Your task to perform on an android device: open app "DuckDuckGo Privacy Browser" (install if not already installed) and enter user name: "cleaving@outlook.com" and password: "freighters" Image 0: 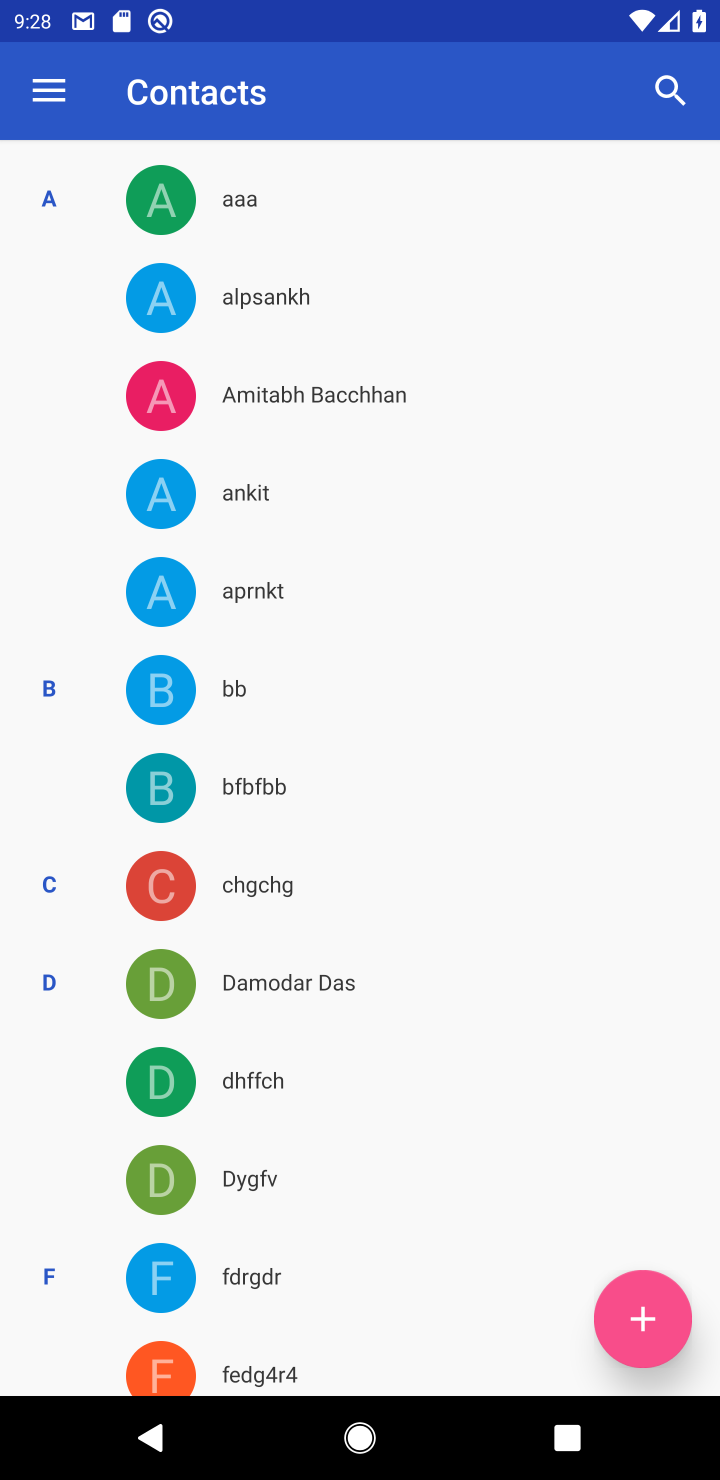
Step 0: press home button
Your task to perform on an android device: open app "DuckDuckGo Privacy Browser" (install if not already installed) and enter user name: "cleaving@outlook.com" and password: "freighters" Image 1: 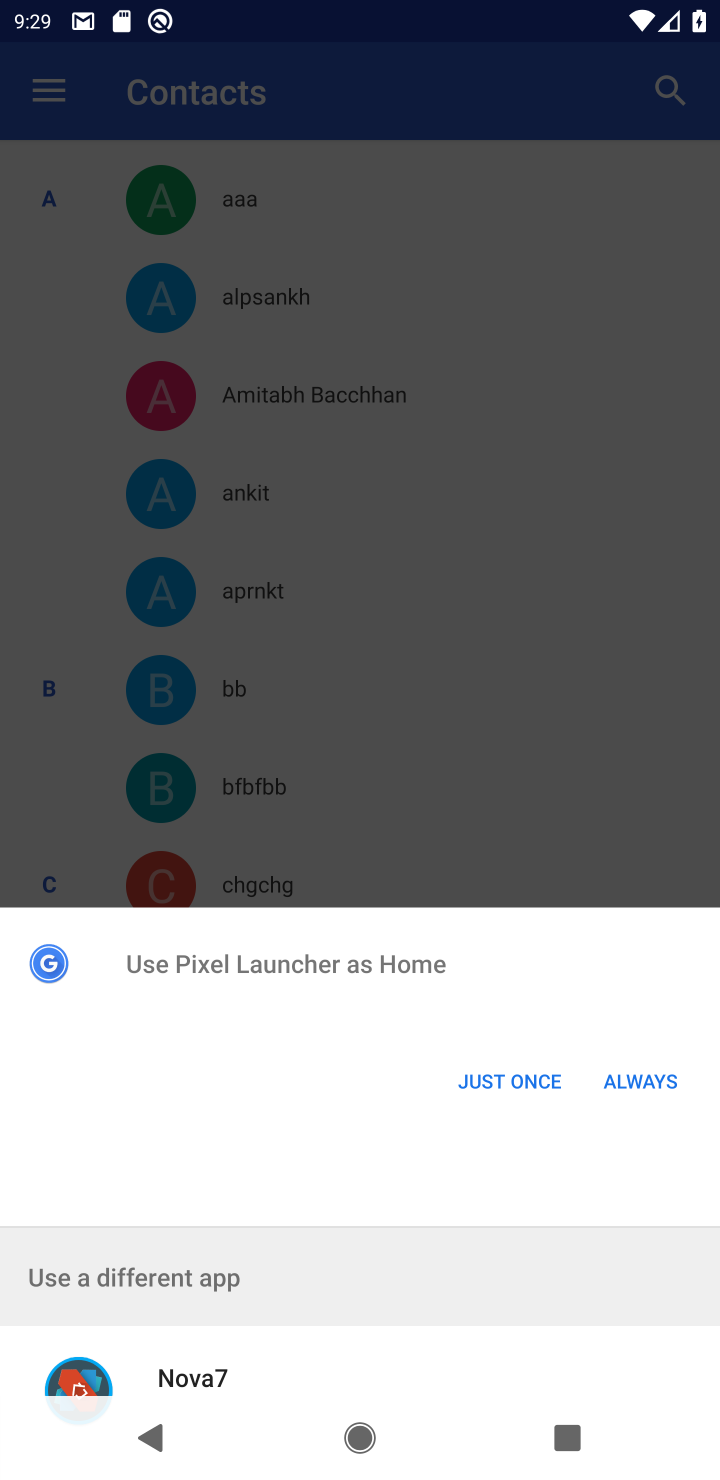
Step 1: press back button
Your task to perform on an android device: open app "DuckDuckGo Privacy Browser" (install if not already installed) and enter user name: "cleaving@outlook.com" and password: "freighters" Image 2: 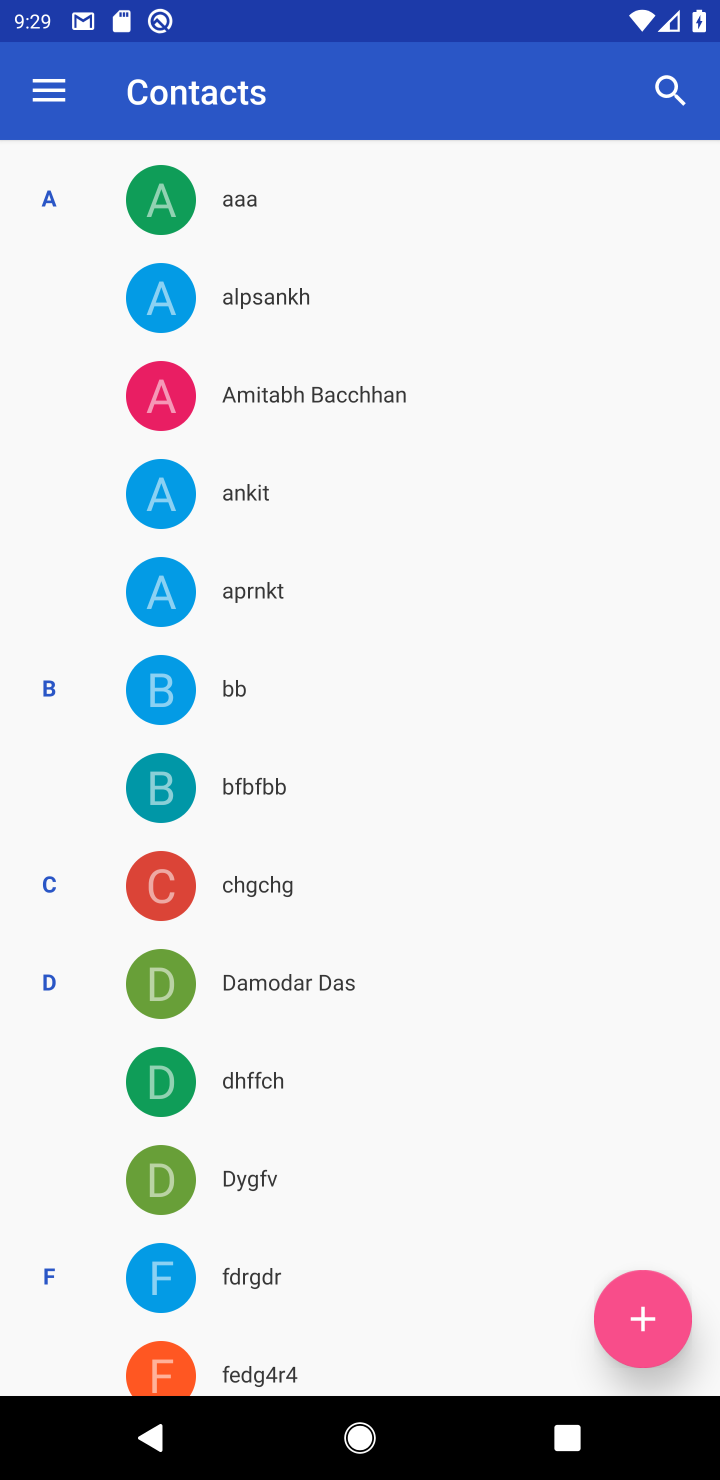
Step 2: press back button
Your task to perform on an android device: open app "DuckDuckGo Privacy Browser" (install if not already installed) and enter user name: "cleaving@outlook.com" and password: "freighters" Image 3: 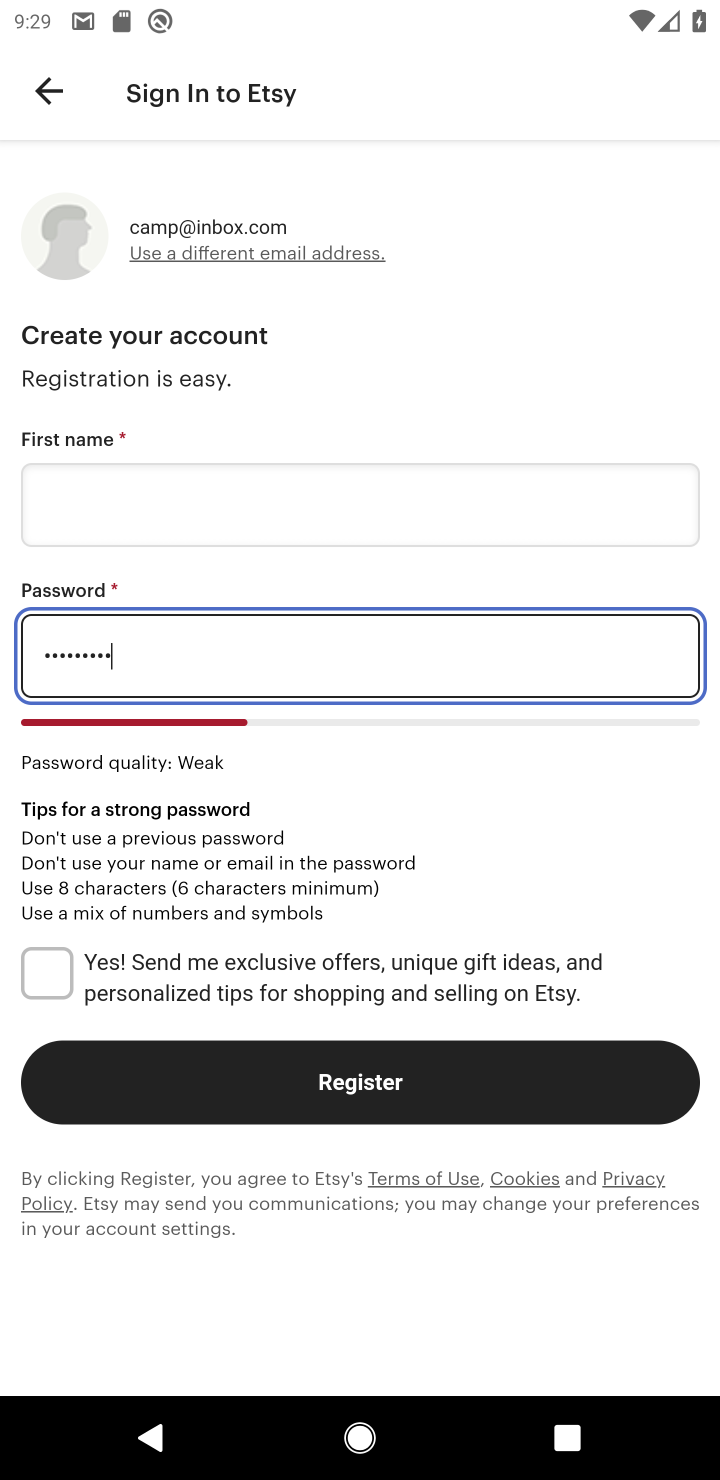
Step 3: press back button
Your task to perform on an android device: open app "DuckDuckGo Privacy Browser" (install if not already installed) and enter user name: "cleaving@outlook.com" and password: "freighters" Image 4: 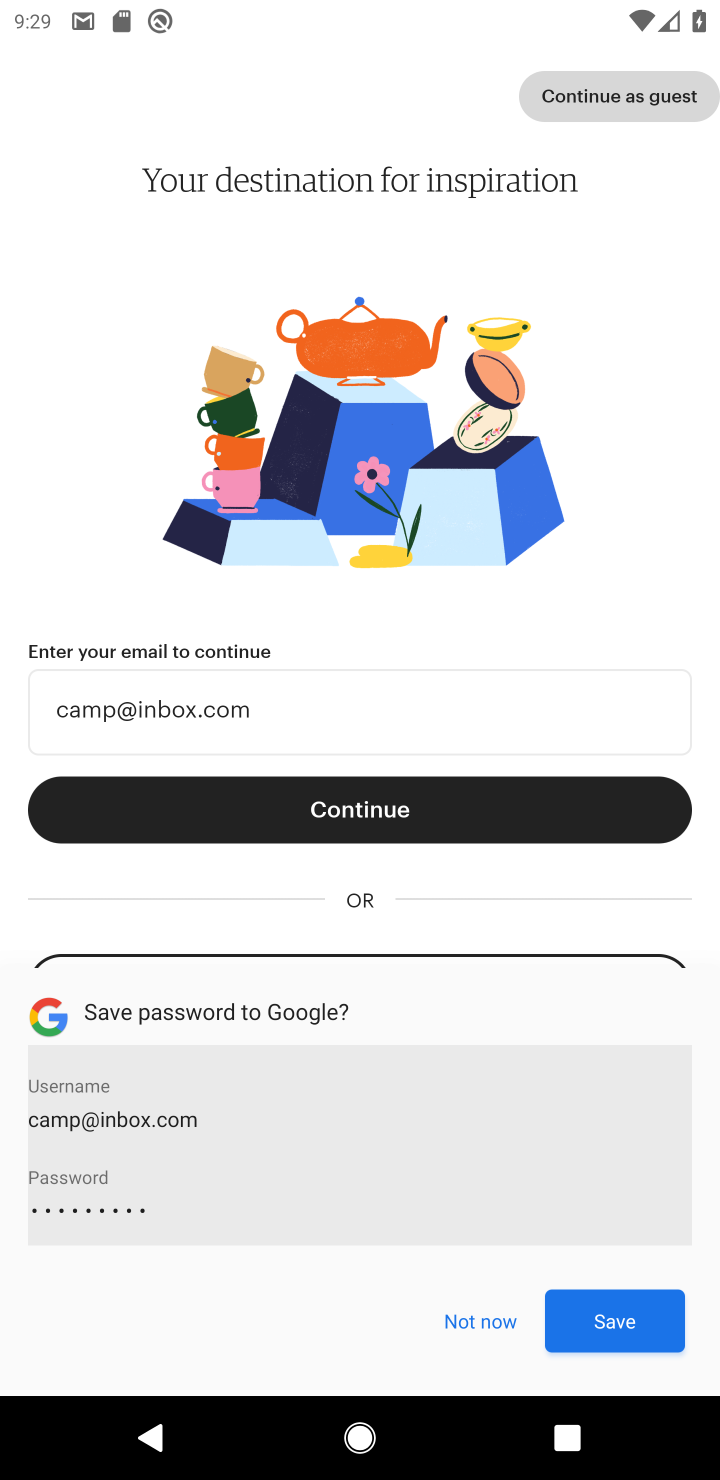
Step 4: press back button
Your task to perform on an android device: open app "DuckDuckGo Privacy Browser" (install if not already installed) and enter user name: "cleaving@outlook.com" and password: "freighters" Image 5: 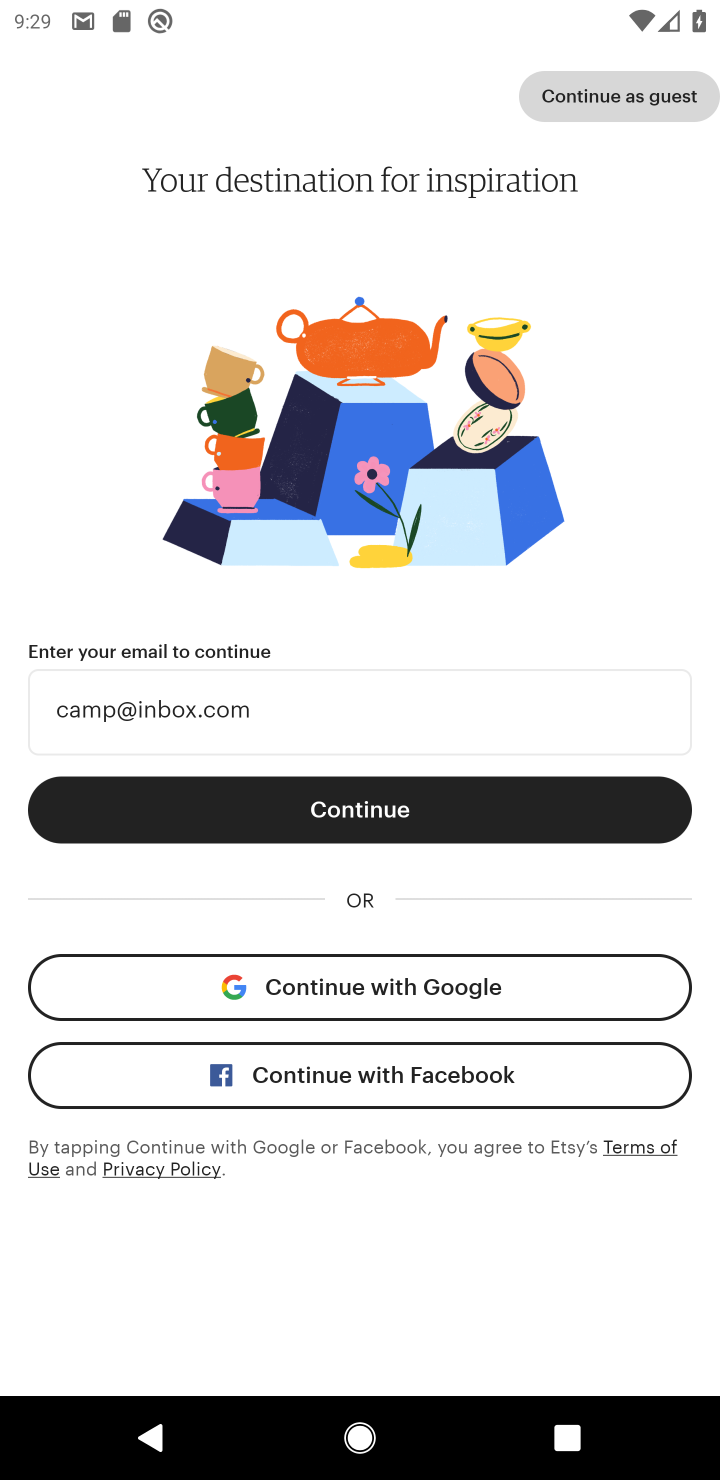
Step 5: press back button
Your task to perform on an android device: open app "DuckDuckGo Privacy Browser" (install if not already installed) and enter user name: "cleaving@outlook.com" and password: "freighters" Image 6: 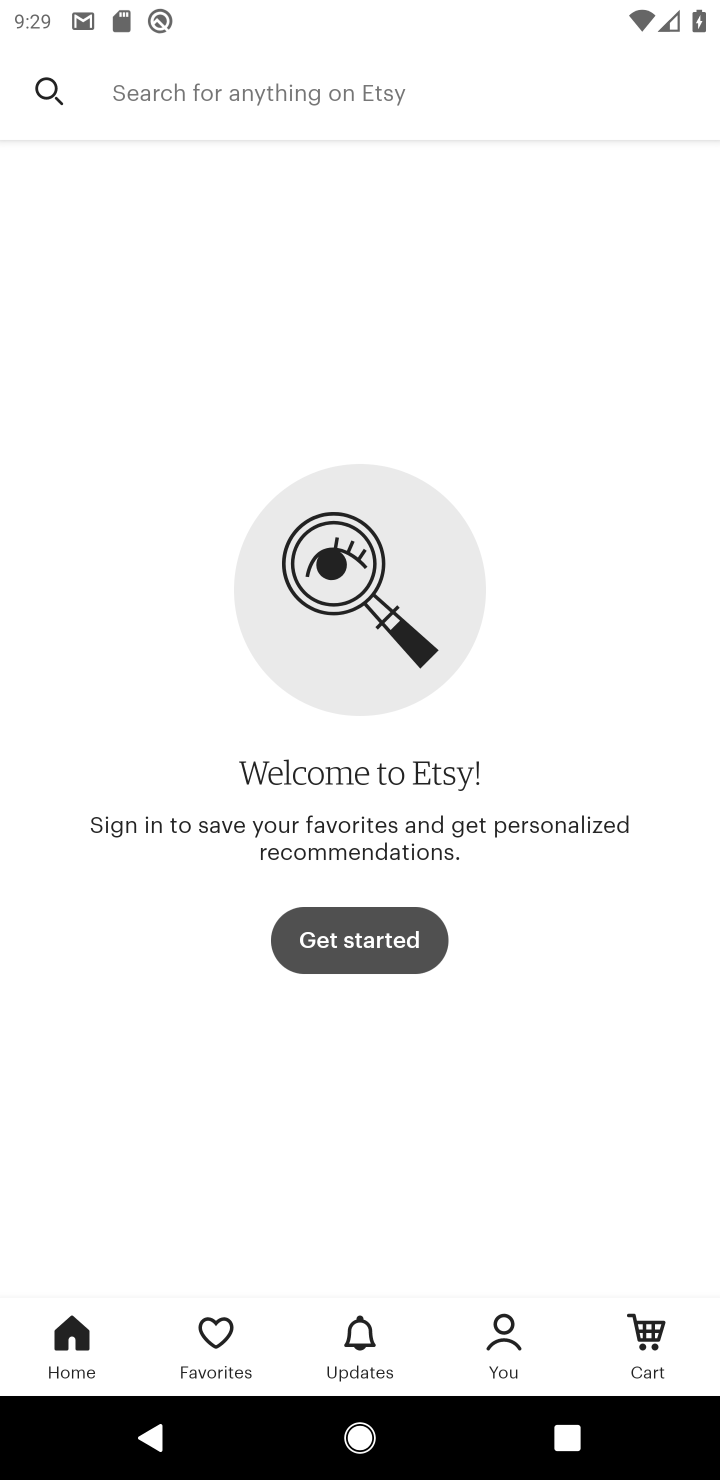
Step 6: press back button
Your task to perform on an android device: open app "DuckDuckGo Privacy Browser" (install if not already installed) and enter user name: "cleaving@outlook.com" and password: "freighters" Image 7: 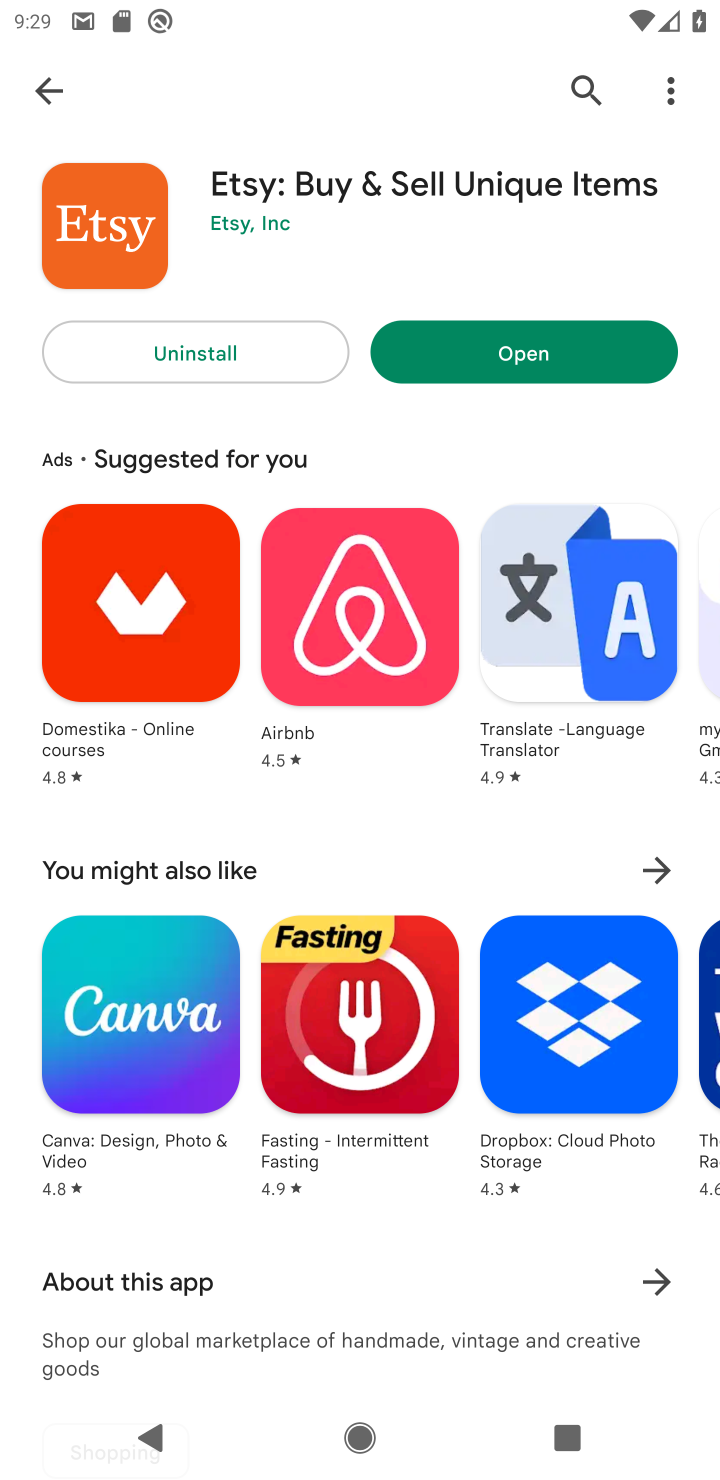
Step 7: press back button
Your task to perform on an android device: open app "DuckDuckGo Privacy Browser" (install if not already installed) and enter user name: "cleaving@outlook.com" and password: "freighters" Image 8: 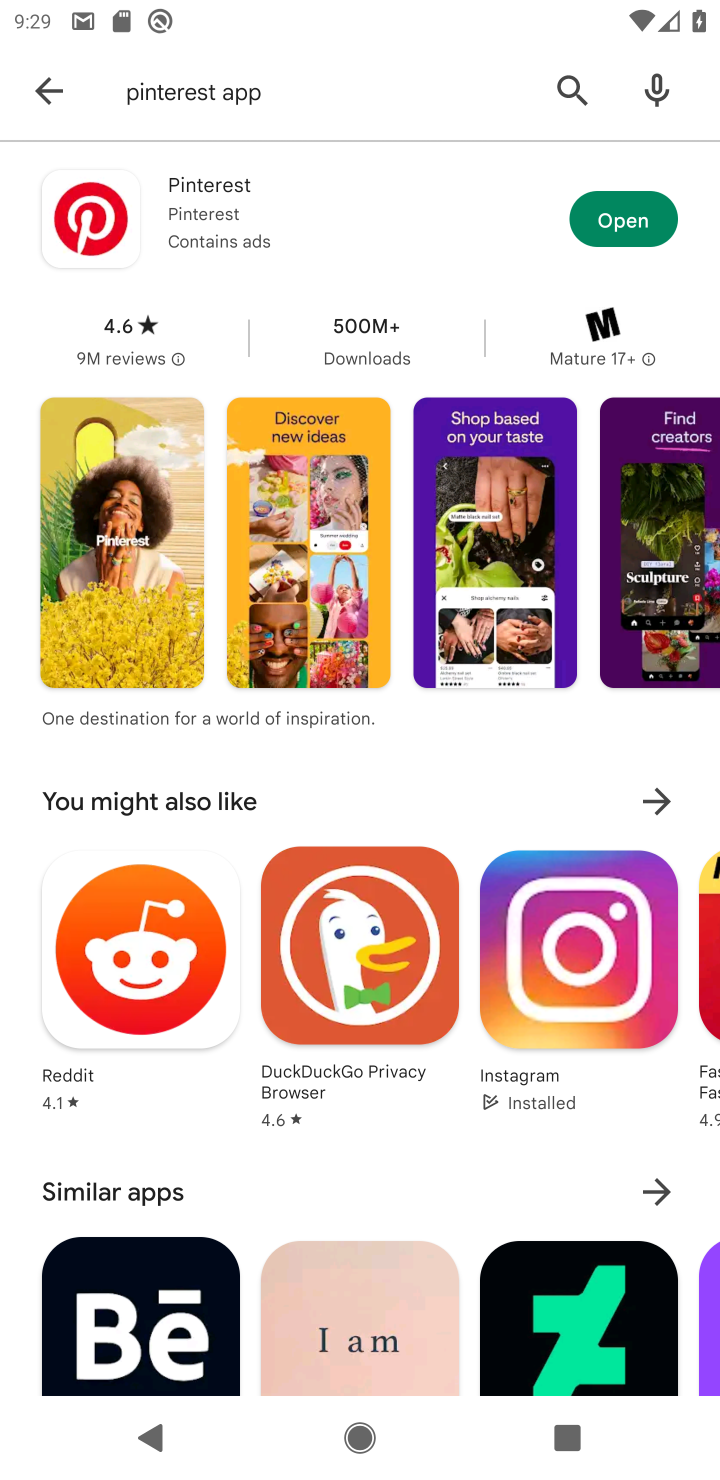
Step 8: click (566, 85)
Your task to perform on an android device: open app "DuckDuckGo Privacy Browser" (install if not already installed) and enter user name: "cleaving@outlook.com" and password: "freighters" Image 9: 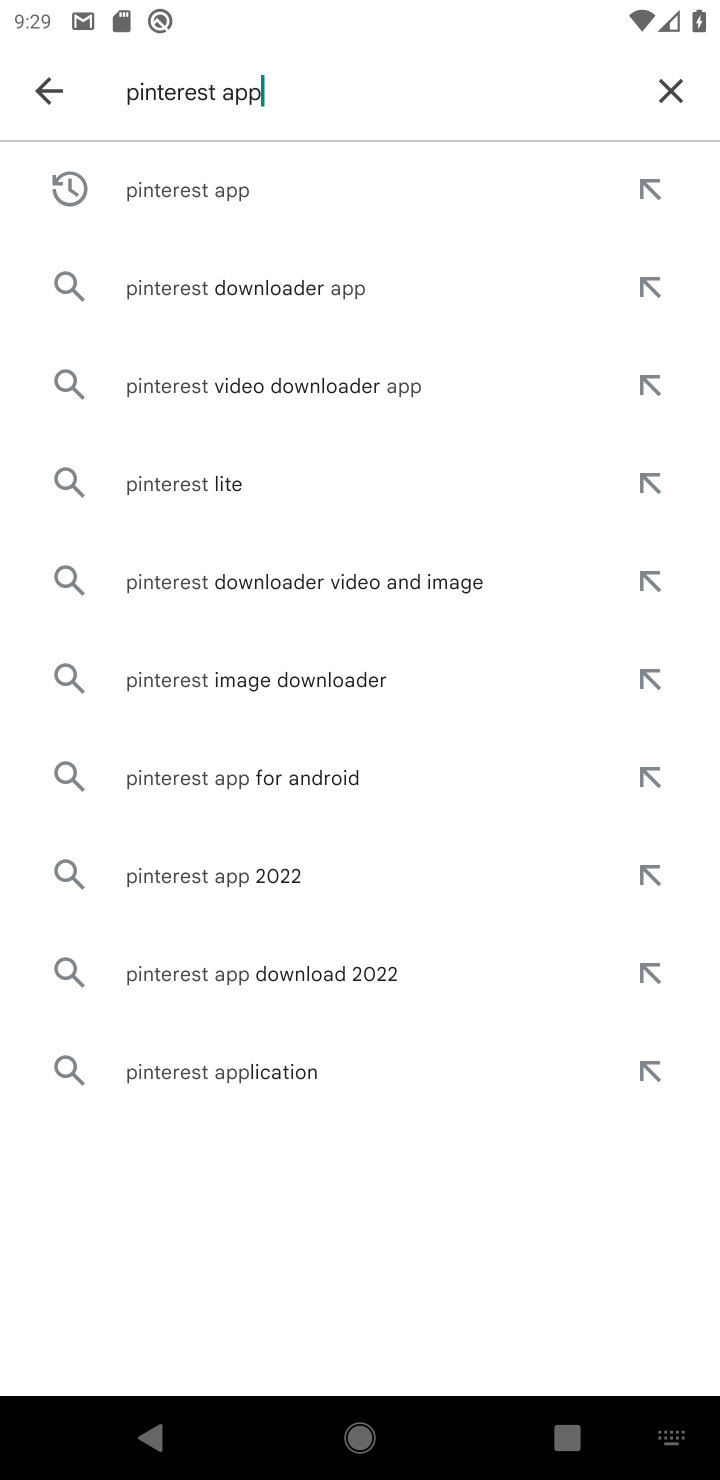
Step 9: click (665, 77)
Your task to perform on an android device: open app "DuckDuckGo Privacy Browser" (install if not already installed) and enter user name: "cleaving@outlook.com" and password: "freighters" Image 10: 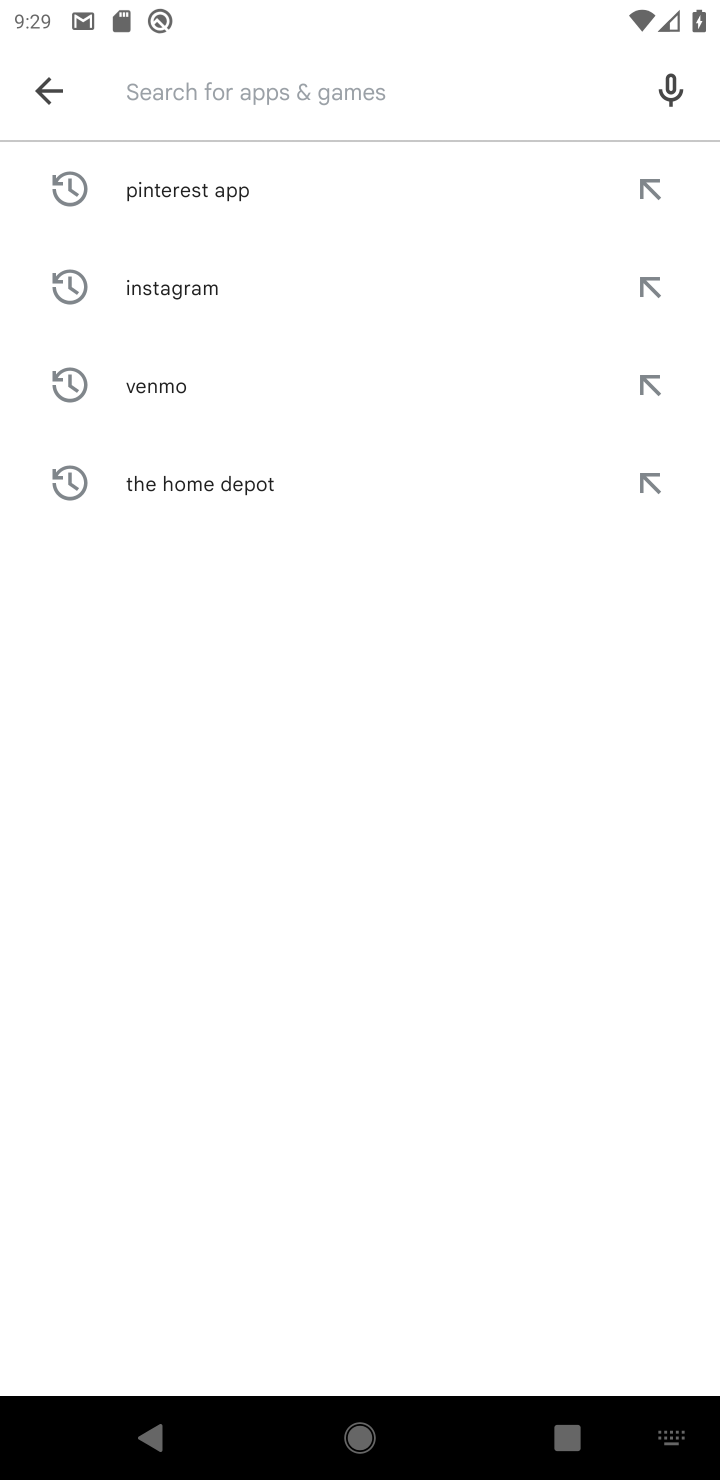
Step 10: type "DuckDuckGo Privacy Browser"
Your task to perform on an android device: open app "DuckDuckGo Privacy Browser" (install if not already installed) and enter user name: "cleaving@outlook.com" and password: "freighters" Image 11: 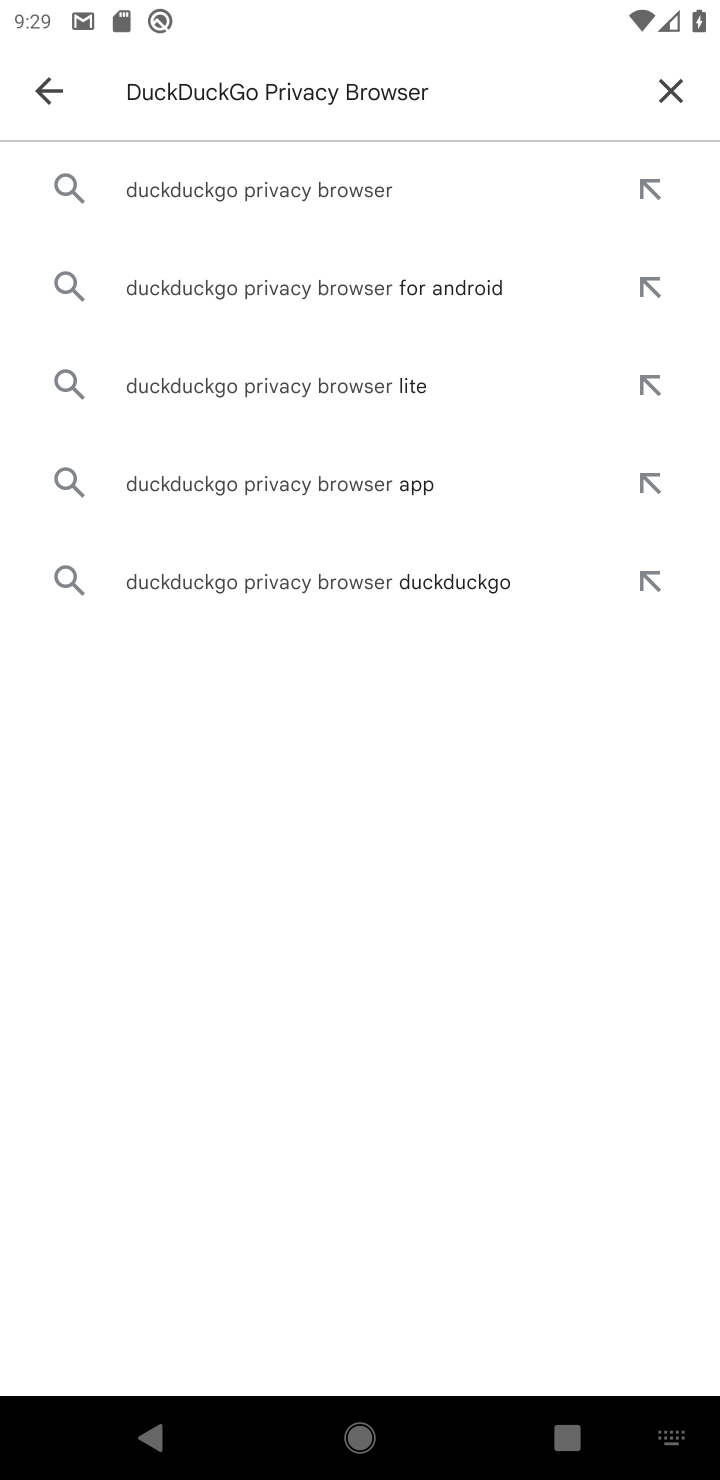
Step 11: click (279, 192)
Your task to perform on an android device: open app "DuckDuckGo Privacy Browser" (install if not already installed) and enter user name: "cleaving@outlook.com" and password: "freighters" Image 12: 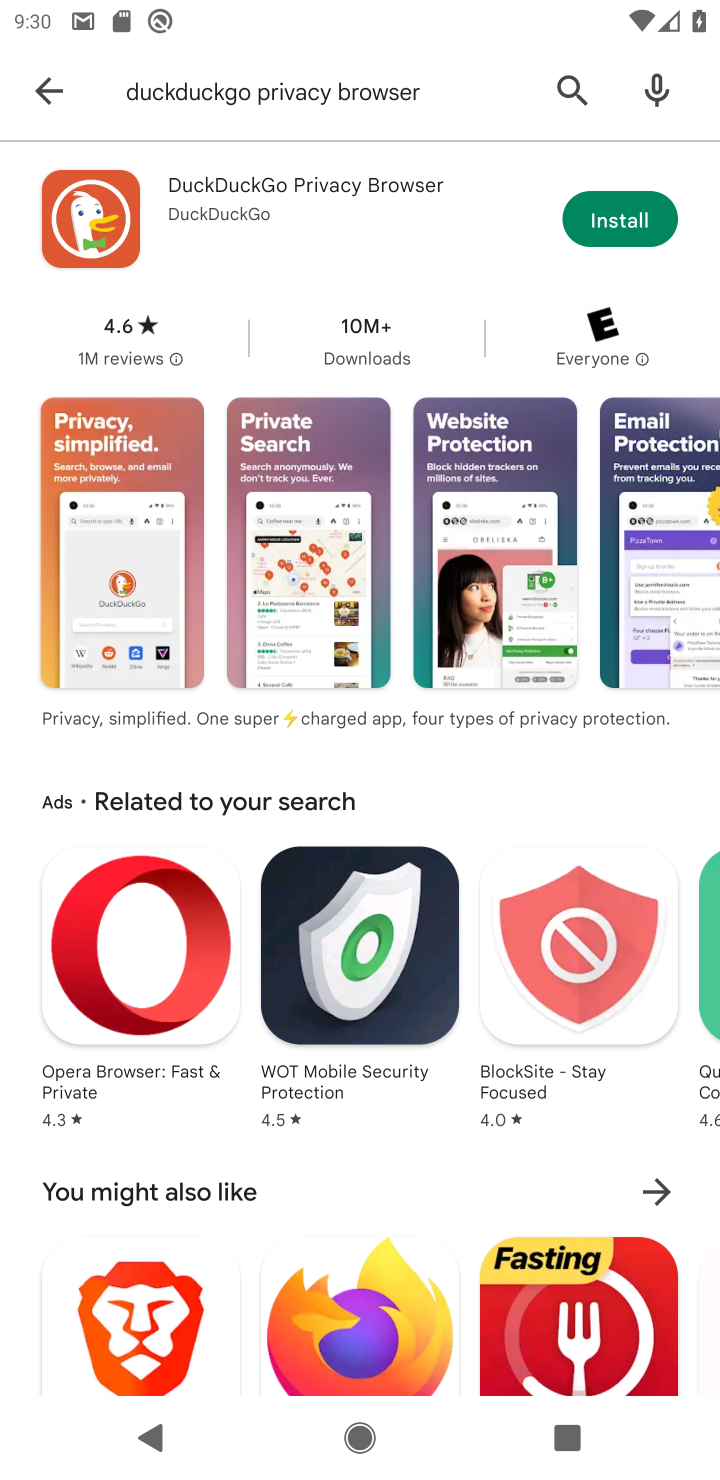
Step 12: click (617, 211)
Your task to perform on an android device: open app "DuckDuckGo Privacy Browser" (install if not already installed) and enter user name: "cleaving@outlook.com" and password: "freighters" Image 13: 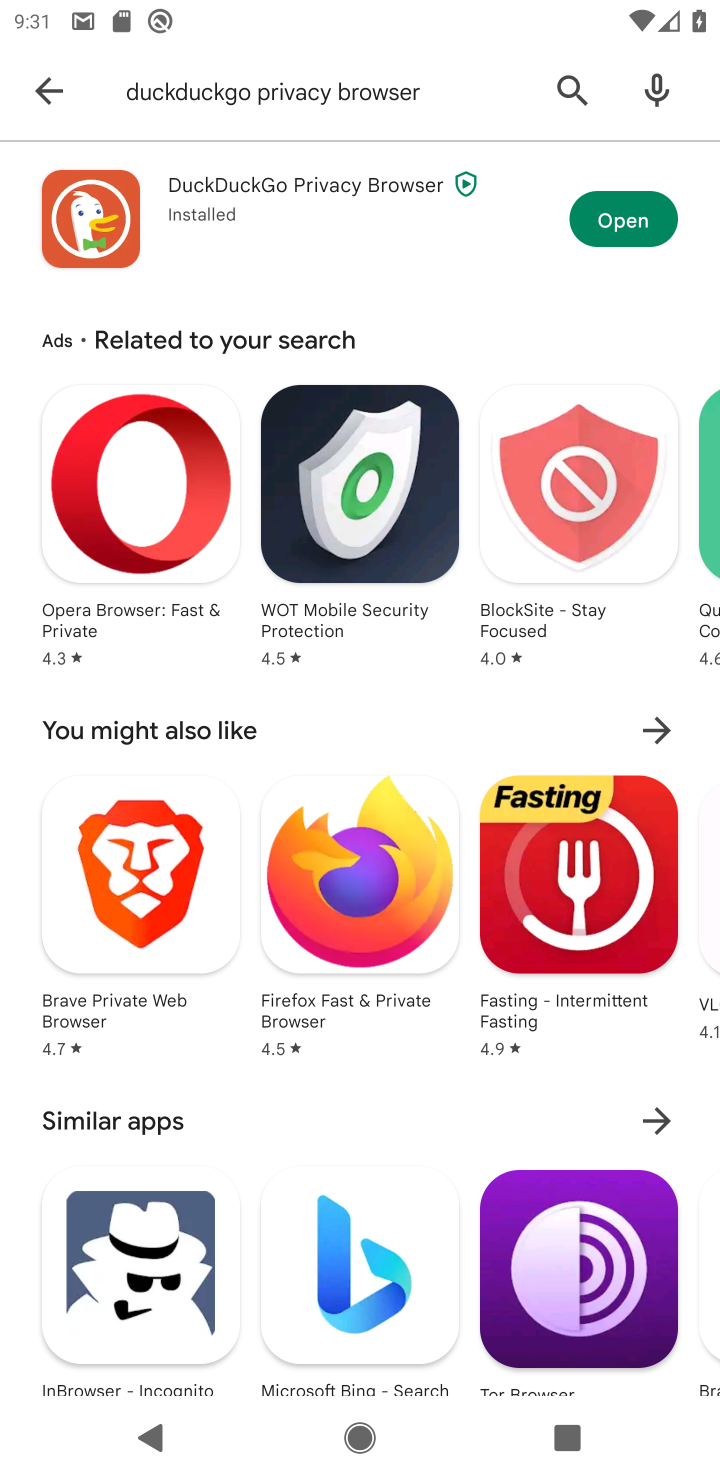
Step 13: click (626, 237)
Your task to perform on an android device: open app "DuckDuckGo Privacy Browser" (install if not already installed) and enter user name: "cleaving@outlook.com" and password: "freighters" Image 14: 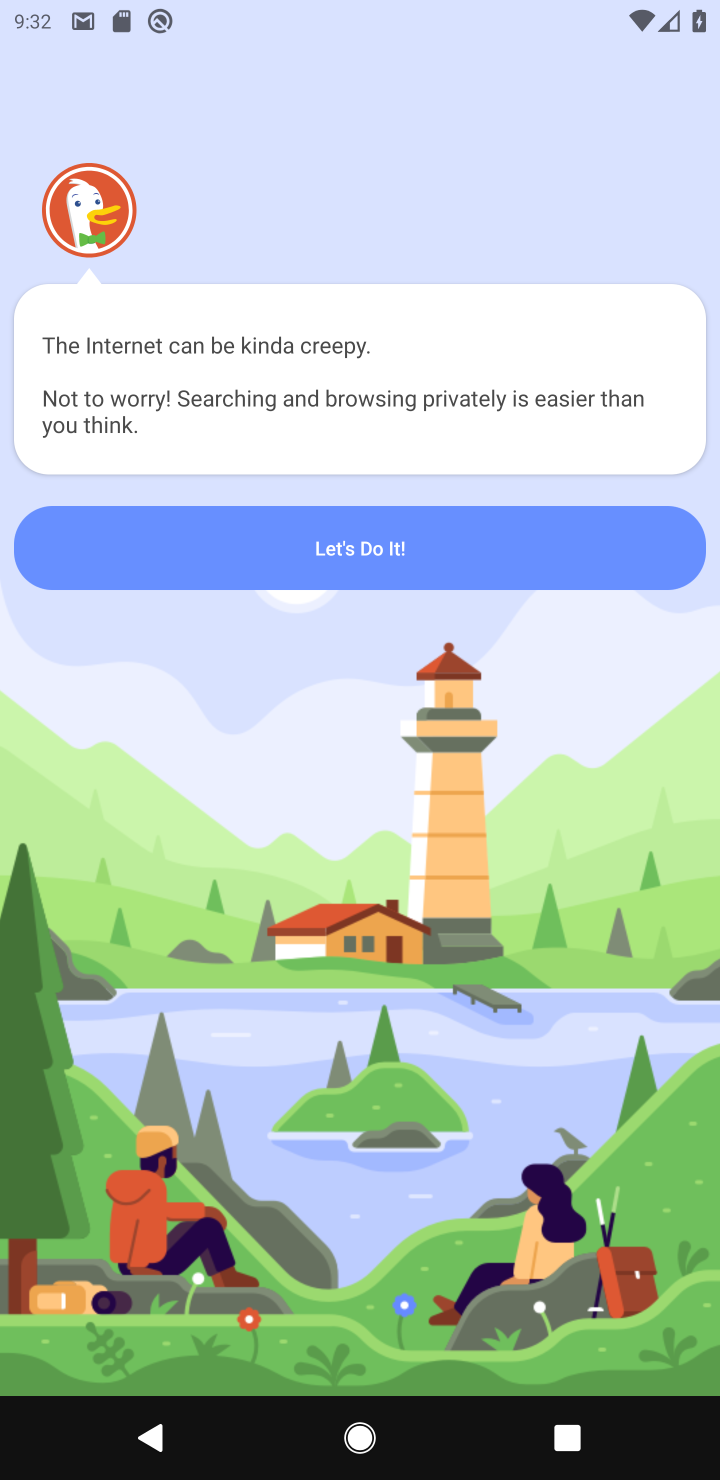
Step 14: click (350, 548)
Your task to perform on an android device: open app "DuckDuckGo Privacy Browser" (install if not already installed) and enter user name: "cleaving@outlook.com" and password: "freighters" Image 15: 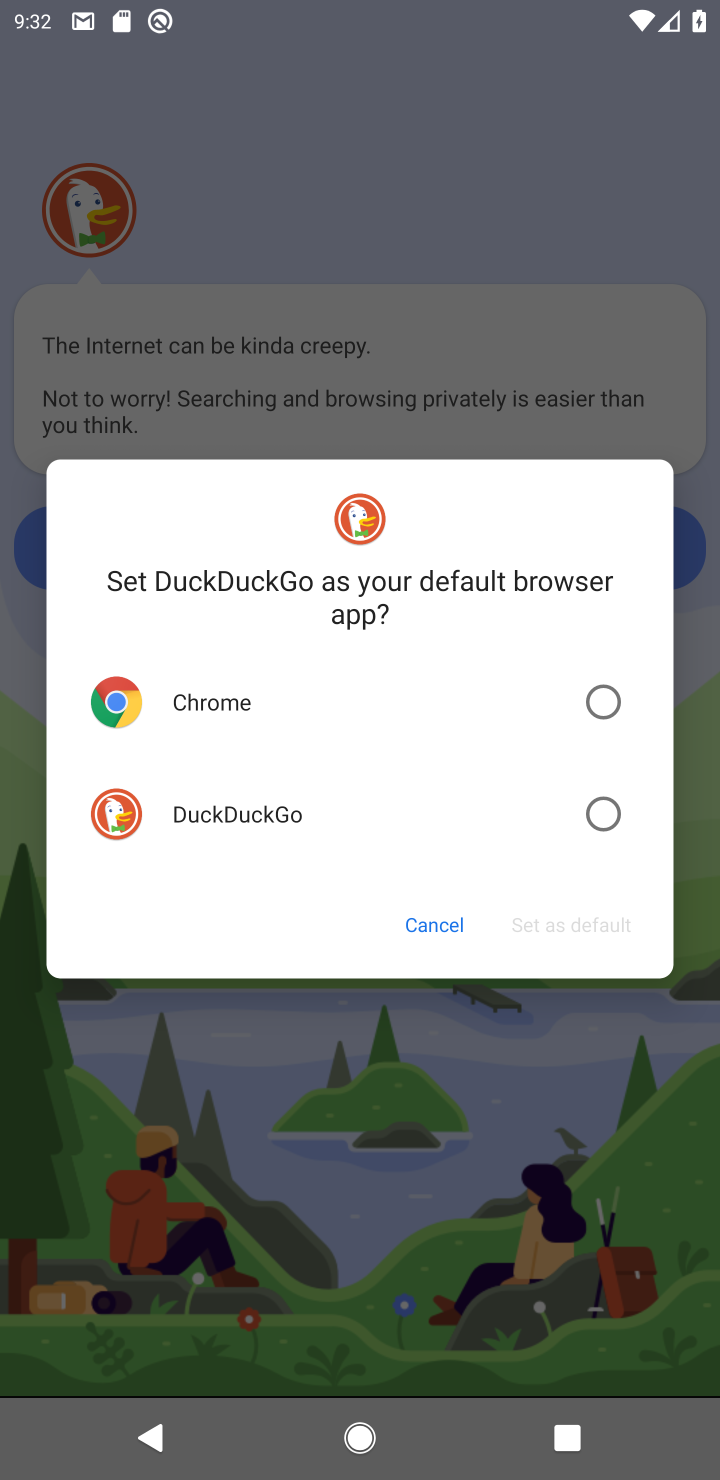
Step 15: click (595, 697)
Your task to perform on an android device: open app "DuckDuckGo Privacy Browser" (install if not already installed) and enter user name: "cleaving@outlook.com" and password: "freighters" Image 16: 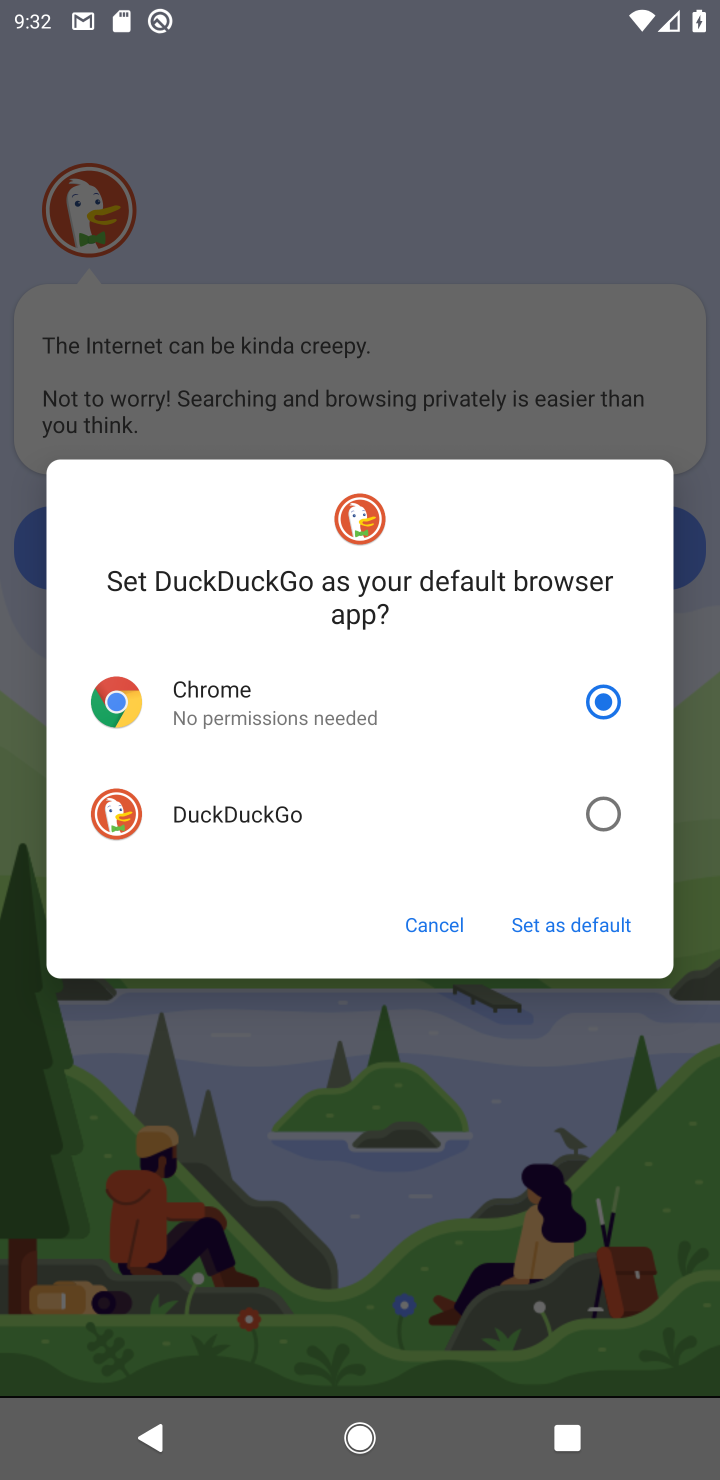
Step 16: click (569, 930)
Your task to perform on an android device: open app "DuckDuckGo Privacy Browser" (install if not already installed) and enter user name: "cleaving@outlook.com" and password: "freighters" Image 17: 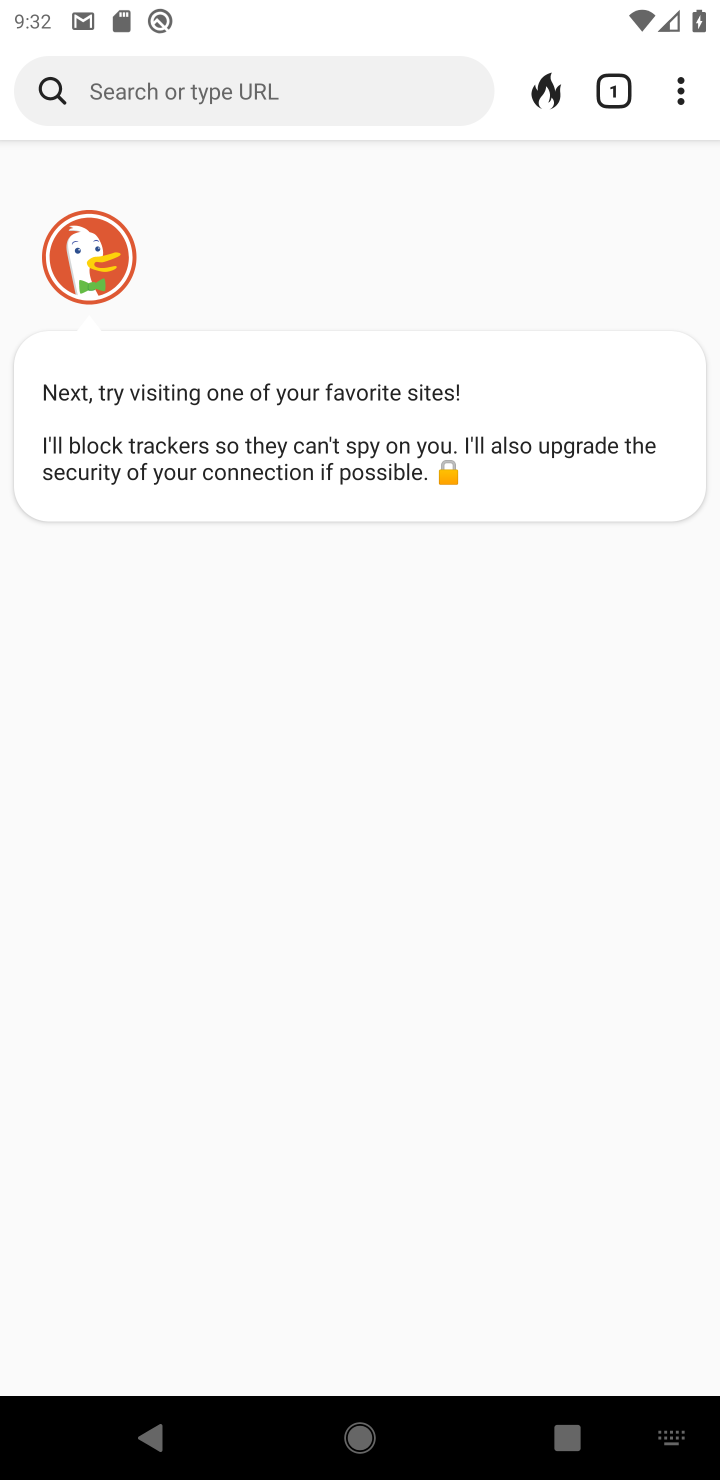
Step 17: task complete